Your task to perform on an android device: all mails in gmail Image 0: 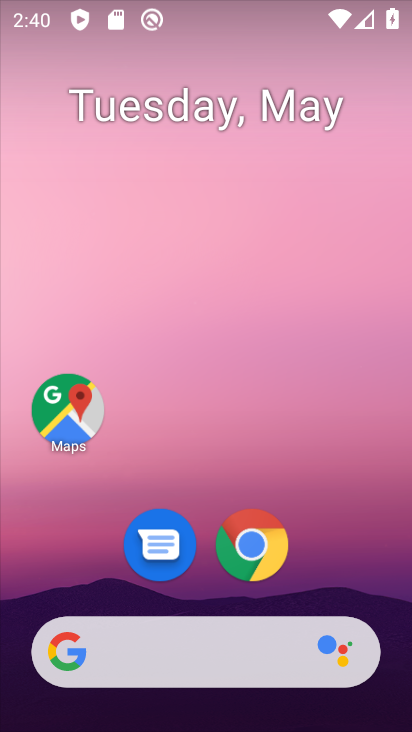
Step 0: drag from (232, 634) to (84, 46)
Your task to perform on an android device: all mails in gmail Image 1: 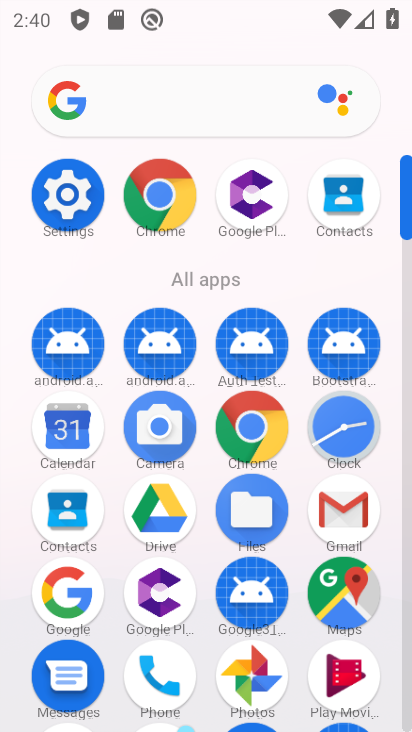
Step 1: click (364, 512)
Your task to perform on an android device: all mails in gmail Image 2: 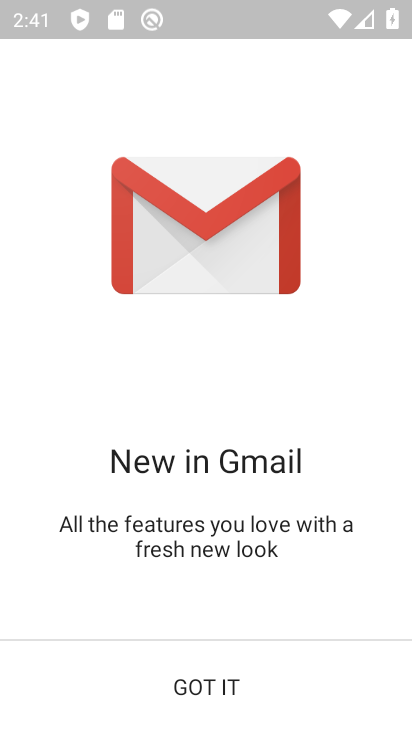
Step 2: click (215, 679)
Your task to perform on an android device: all mails in gmail Image 3: 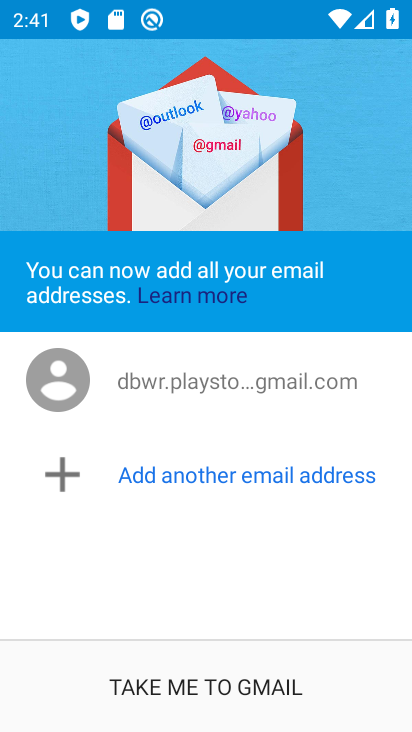
Step 3: click (218, 677)
Your task to perform on an android device: all mails in gmail Image 4: 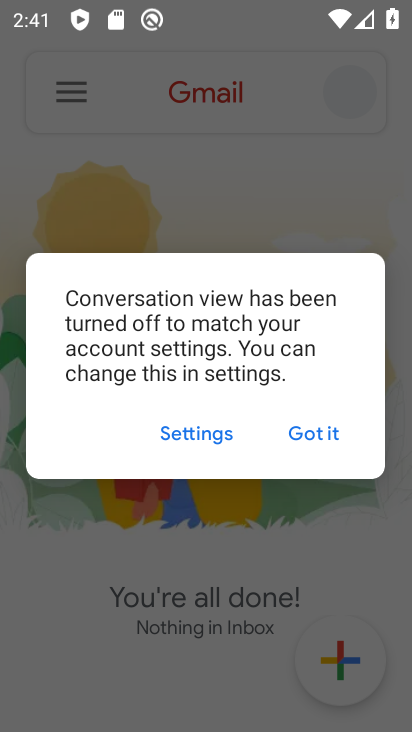
Step 4: click (307, 430)
Your task to perform on an android device: all mails in gmail Image 5: 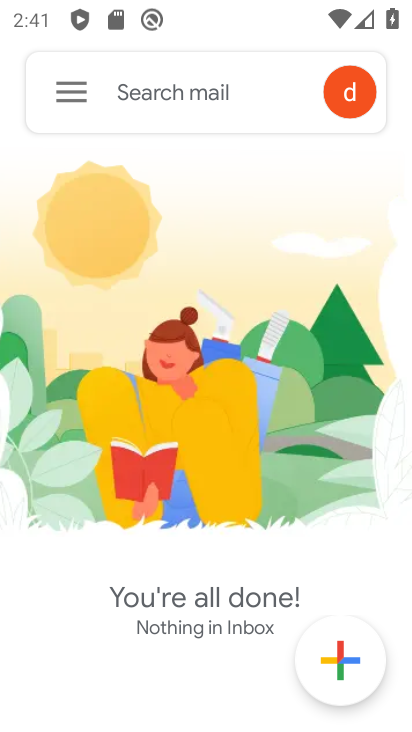
Step 5: click (77, 90)
Your task to perform on an android device: all mails in gmail Image 6: 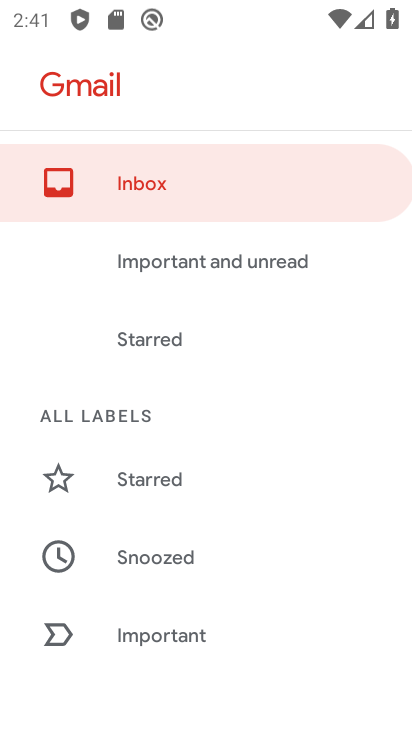
Step 6: drag from (156, 554) to (124, 24)
Your task to perform on an android device: all mails in gmail Image 7: 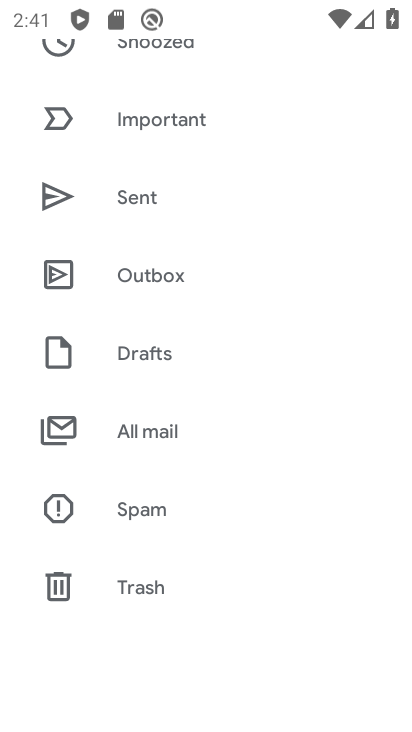
Step 7: click (153, 428)
Your task to perform on an android device: all mails in gmail Image 8: 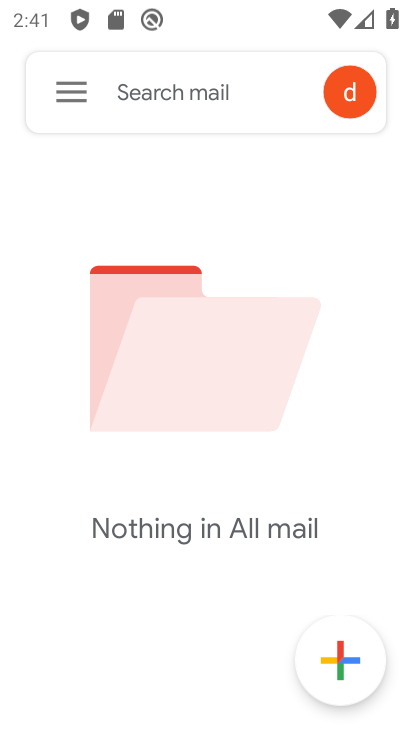
Step 8: task complete